Your task to perform on an android device: What's the news in Sri Lanka? Image 0: 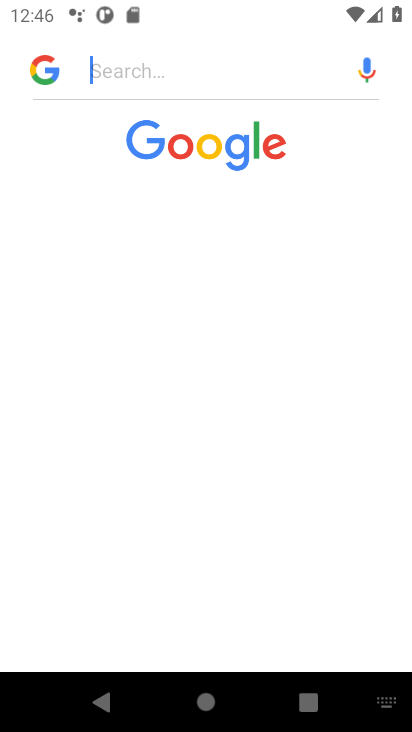
Step 0: press home button
Your task to perform on an android device: What's the news in Sri Lanka? Image 1: 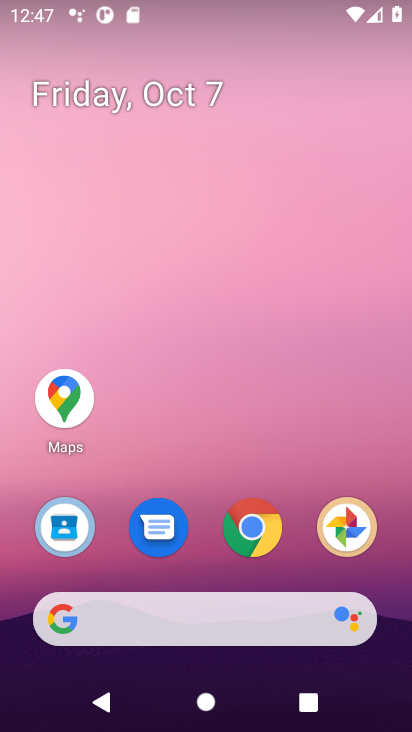
Step 1: click (200, 617)
Your task to perform on an android device: What's the news in Sri Lanka? Image 2: 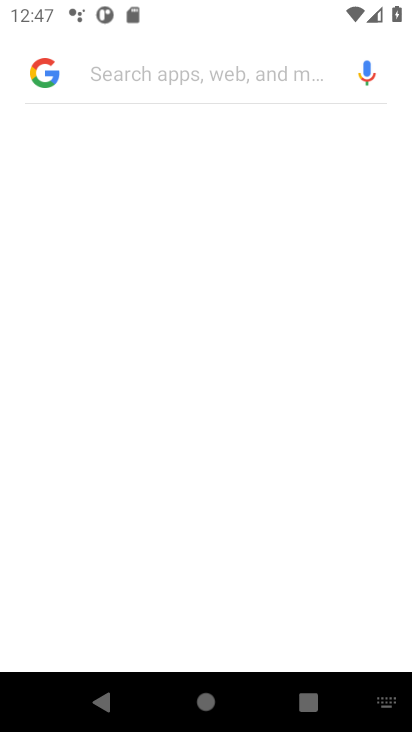
Step 2: type "What's the news in Sri Lanka?"
Your task to perform on an android device: What's the news in Sri Lanka? Image 3: 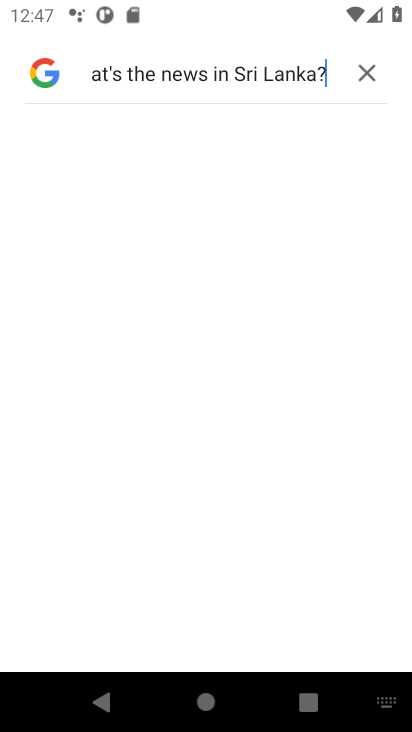
Step 3: task complete